Your task to perform on an android device: Open maps Image 0: 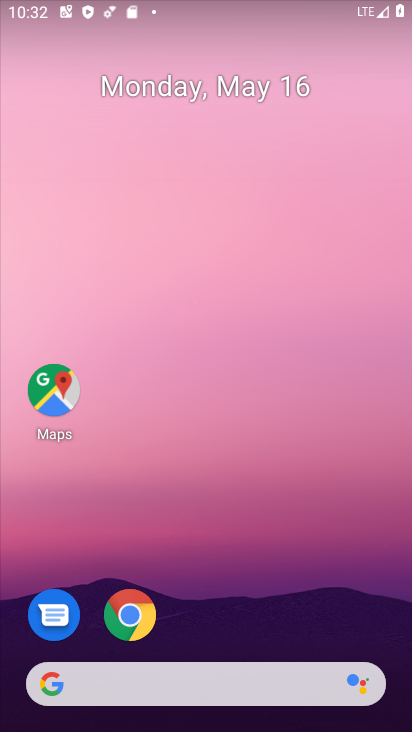
Step 0: drag from (238, 653) to (309, 107)
Your task to perform on an android device: Open maps Image 1: 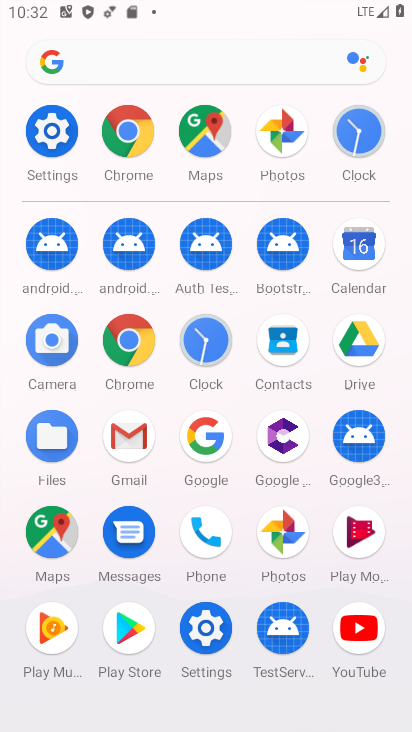
Step 1: click (203, 169)
Your task to perform on an android device: Open maps Image 2: 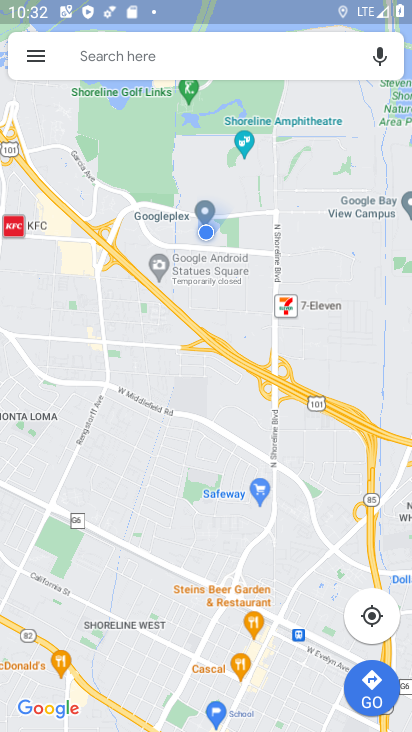
Step 2: task complete